Your task to perform on an android device: toggle show notifications on the lock screen Image 0: 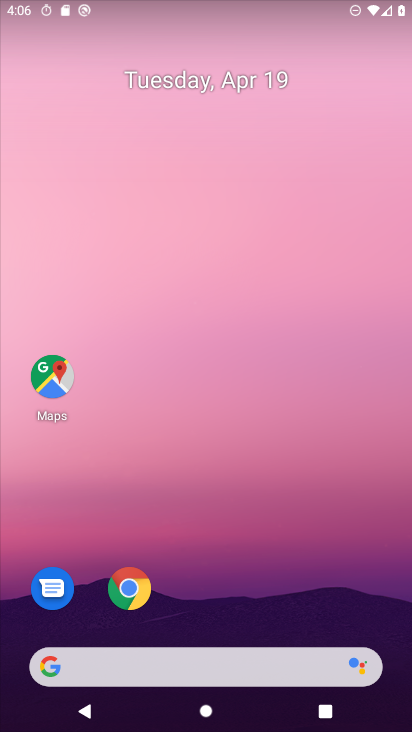
Step 0: drag from (220, 597) to (265, 56)
Your task to perform on an android device: toggle show notifications on the lock screen Image 1: 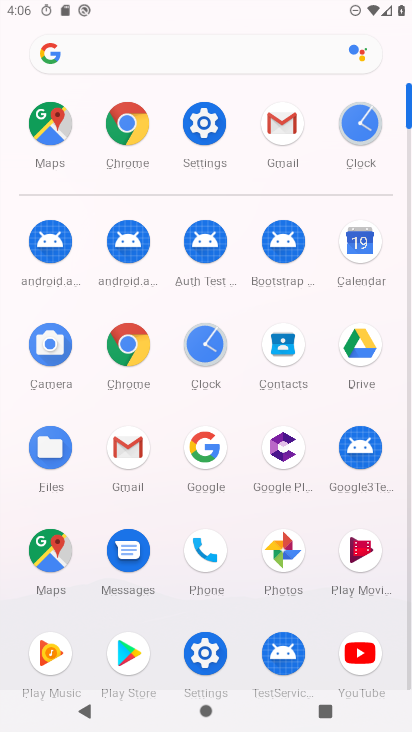
Step 1: click (207, 125)
Your task to perform on an android device: toggle show notifications on the lock screen Image 2: 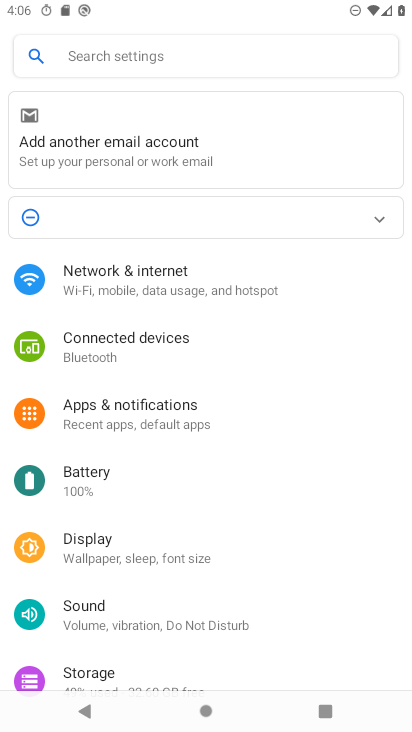
Step 2: click (182, 407)
Your task to perform on an android device: toggle show notifications on the lock screen Image 3: 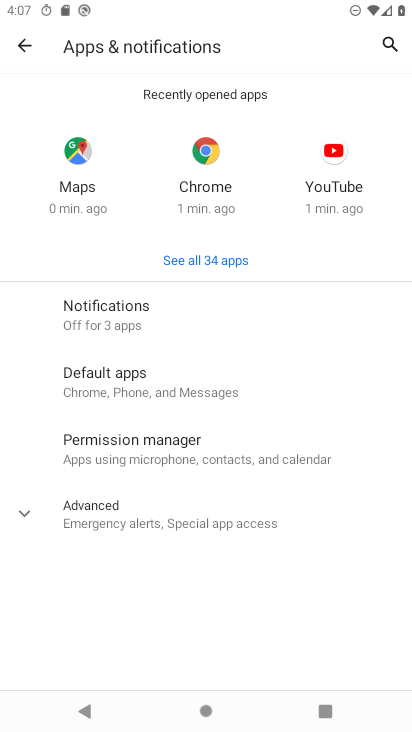
Step 3: click (159, 314)
Your task to perform on an android device: toggle show notifications on the lock screen Image 4: 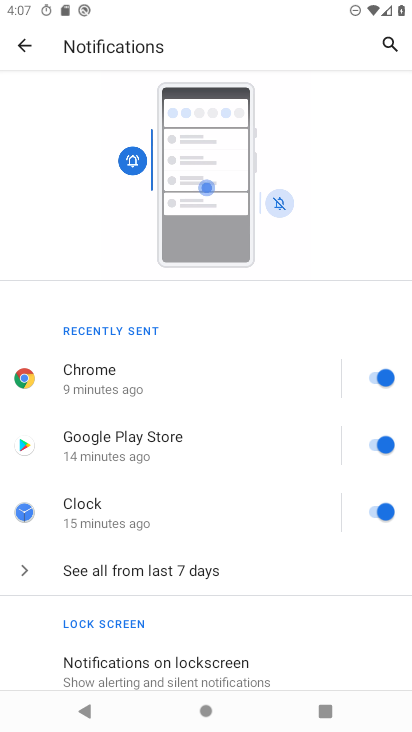
Step 4: drag from (200, 655) to (228, 432)
Your task to perform on an android device: toggle show notifications on the lock screen Image 5: 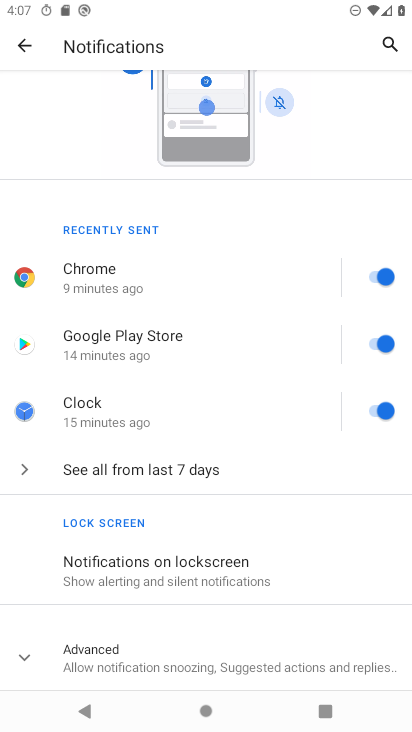
Step 5: click (209, 564)
Your task to perform on an android device: toggle show notifications on the lock screen Image 6: 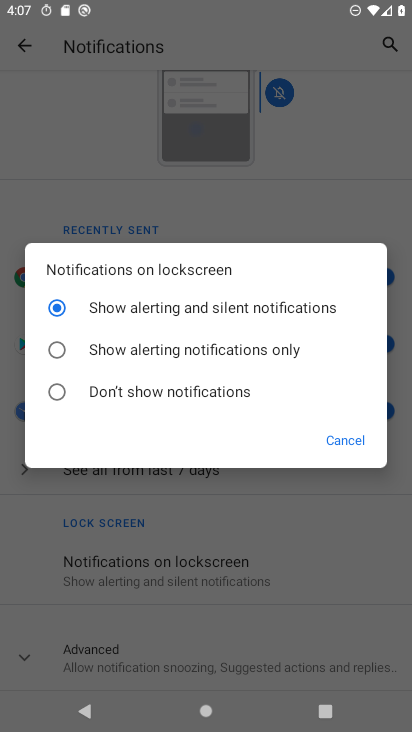
Step 6: click (162, 386)
Your task to perform on an android device: toggle show notifications on the lock screen Image 7: 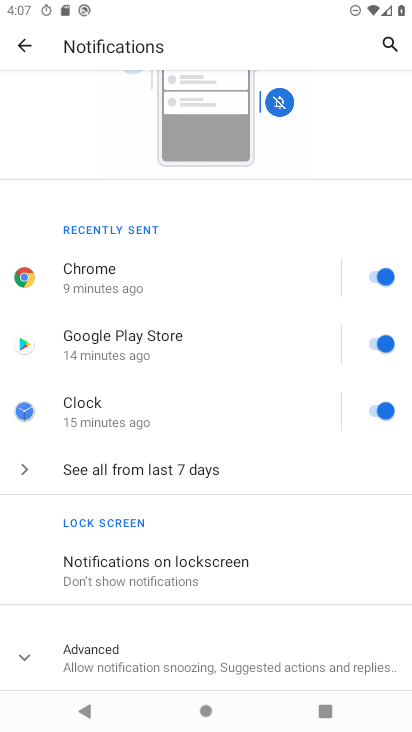
Step 7: task complete